Your task to perform on an android device: turn off location history Image 0: 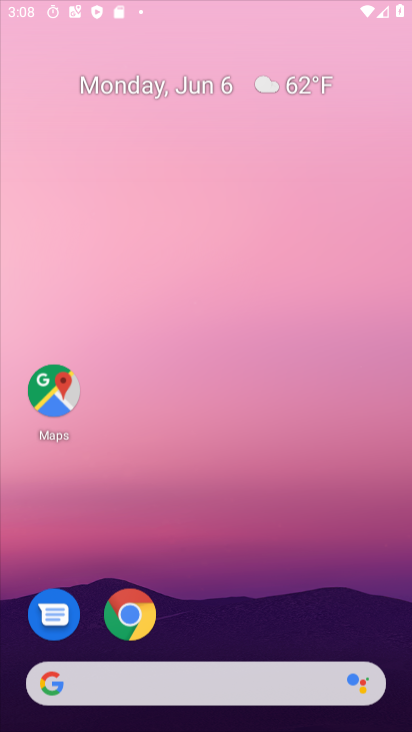
Step 0: drag from (380, 79) to (390, 22)
Your task to perform on an android device: turn off location history Image 1: 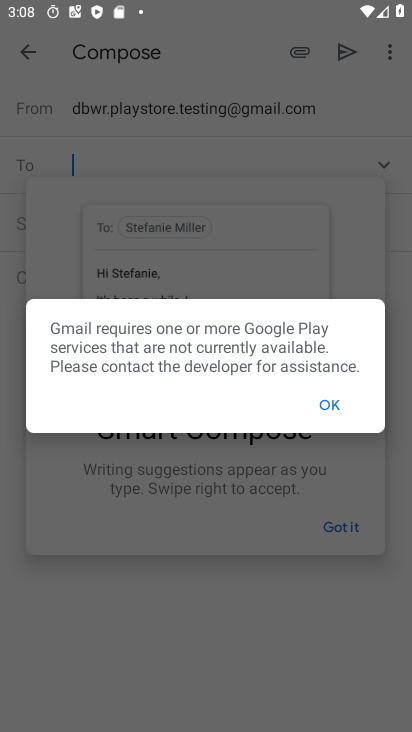
Step 1: press home button
Your task to perform on an android device: turn off location history Image 2: 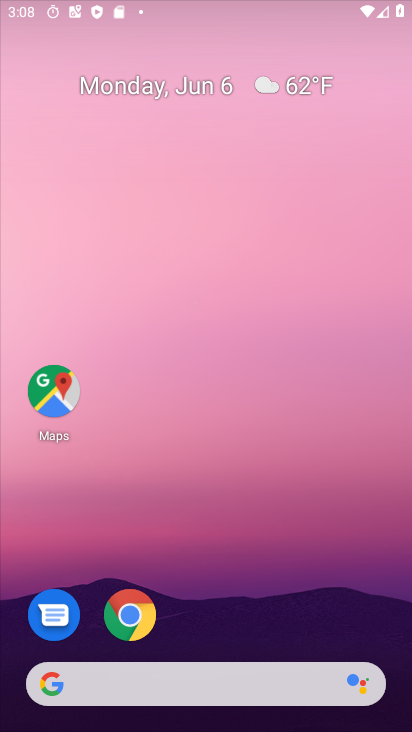
Step 2: drag from (211, 697) to (304, 0)
Your task to perform on an android device: turn off location history Image 3: 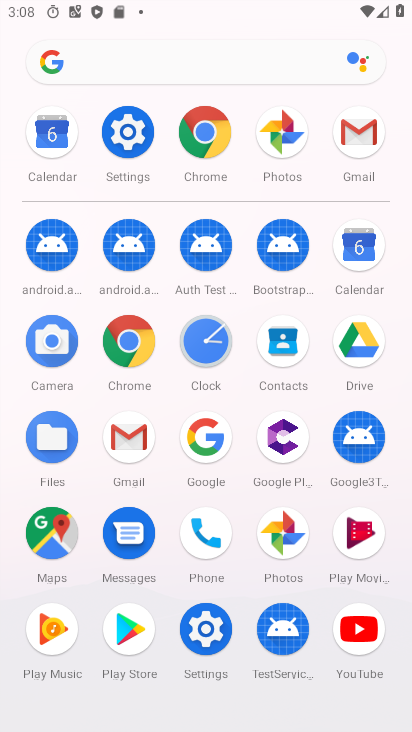
Step 3: click (60, 530)
Your task to perform on an android device: turn off location history Image 4: 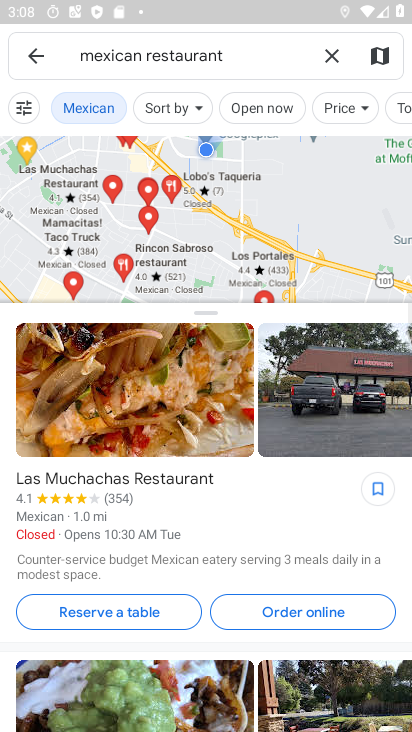
Step 4: press back button
Your task to perform on an android device: turn off location history Image 5: 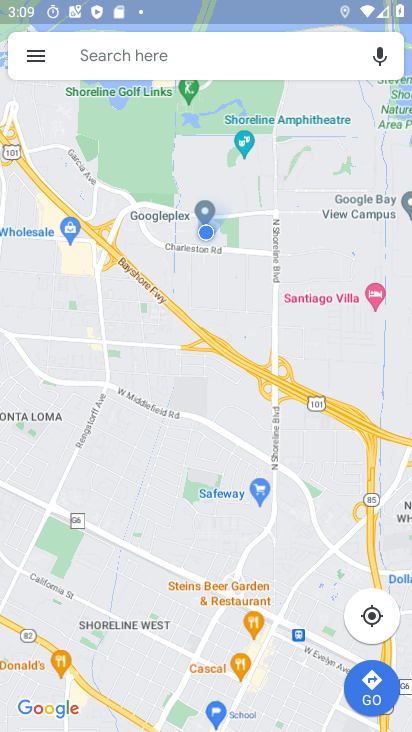
Step 5: click (48, 61)
Your task to perform on an android device: turn off location history Image 6: 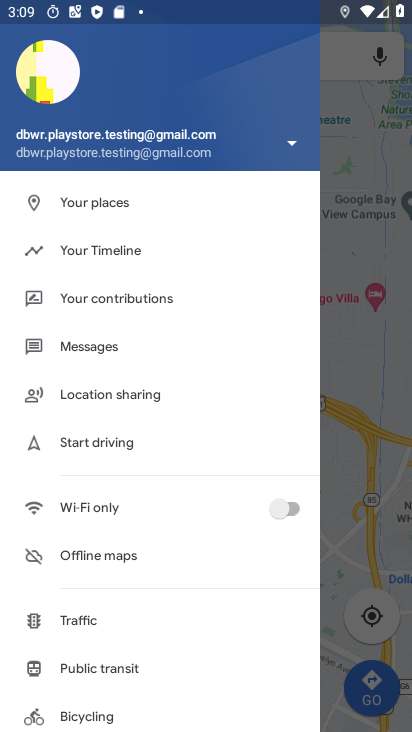
Step 6: click (169, 253)
Your task to perform on an android device: turn off location history Image 7: 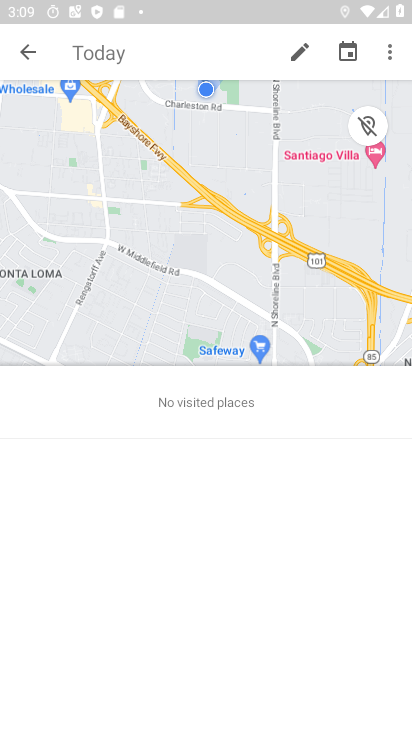
Step 7: press home button
Your task to perform on an android device: turn off location history Image 8: 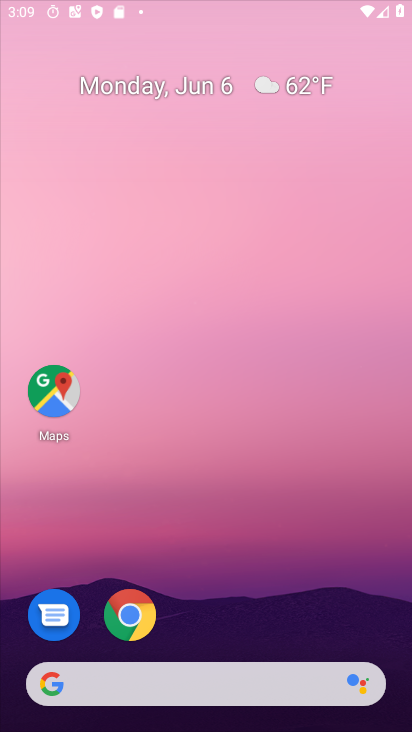
Step 8: drag from (267, 660) to (326, 4)
Your task to perform on an android device: turn off location history Image 9: 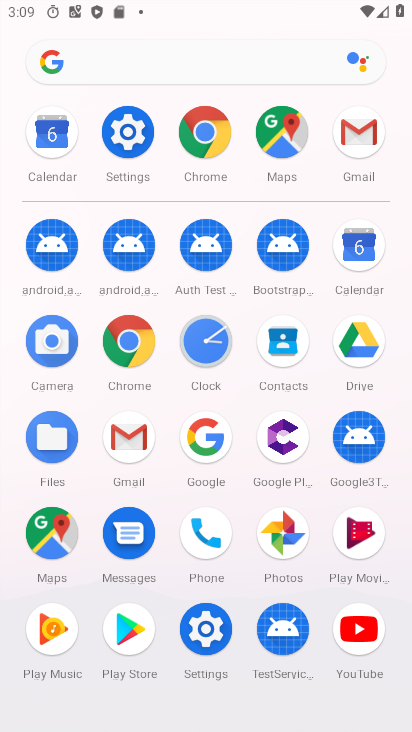
Step 9: click (126, 119)
Your task to perform on an android device: turn off location history Image 10: 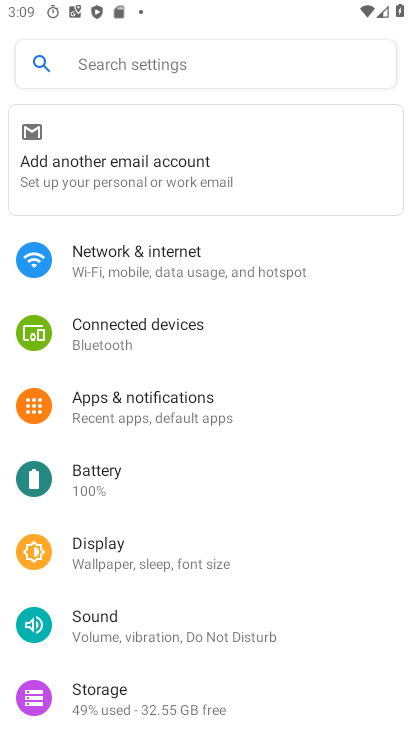
Step 10: drag from (209, 598) to (220, 96)
Your task to perform on an android device: turn off location history Image 11: 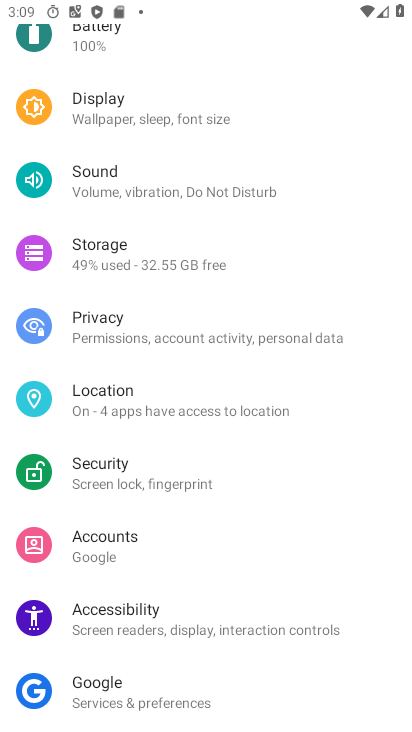
Step 11: click (174, 392)
Your task to perform on an android device: turn off location history Image 12: 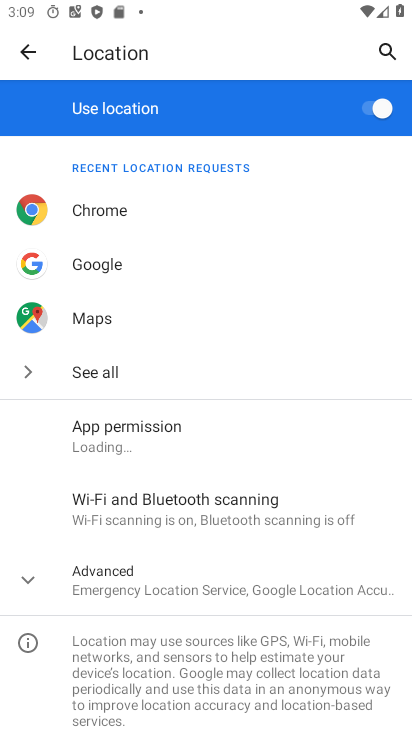
Step 12: click (175, 583)
Your task to perform on an android device: turn off location history Image 13: 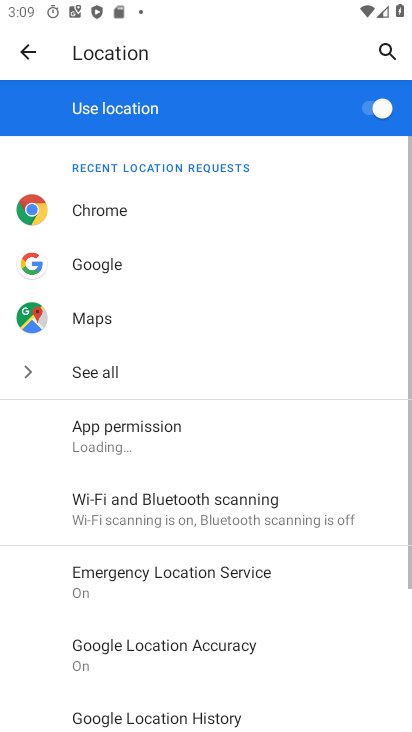
Step 13: drag from (177, 625) to (209, 243)
Your task to perform on an android device: turn off location history Image 14: 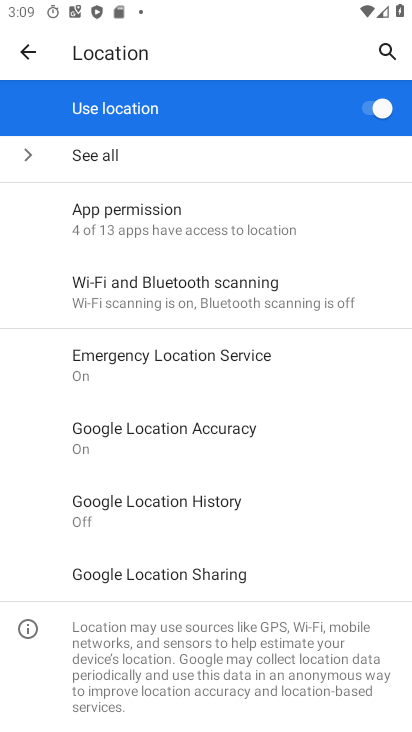
Step 14: click (193, 507)
Your task to perform on an android device: turn off location history Image 15: 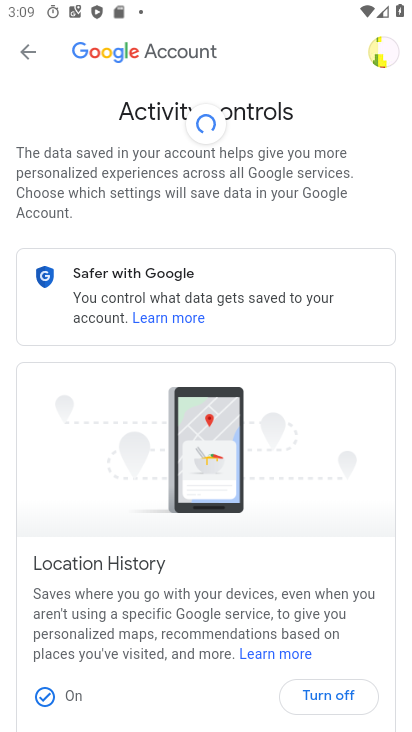
Step 15: drag from (219, 578) to (287, 195)
Your task to perform on an android device: turn off location history Image 16: 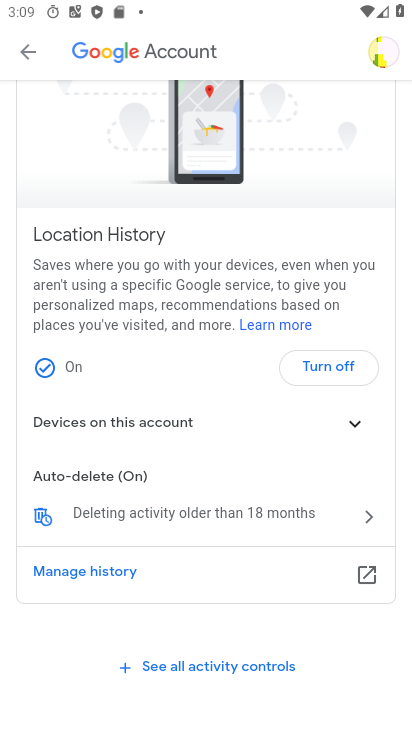
Step 16: click (331, 360)
Your task to perform on an android device: turn off location history Image 17: 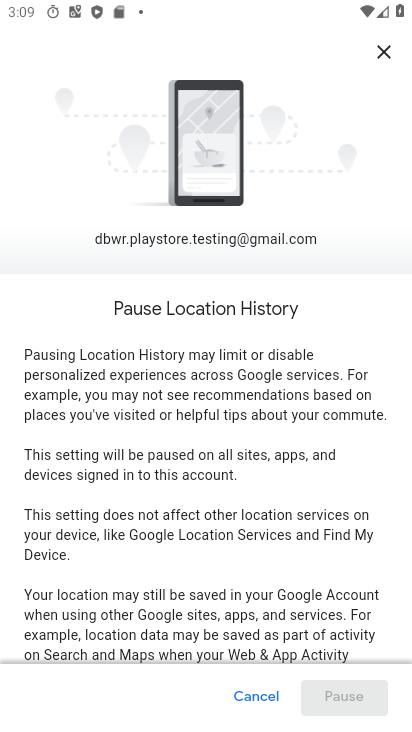
Step 17: drag from (300, 568) to (297, 95)
Your task to perform on an android device: turn off location history Image 18: 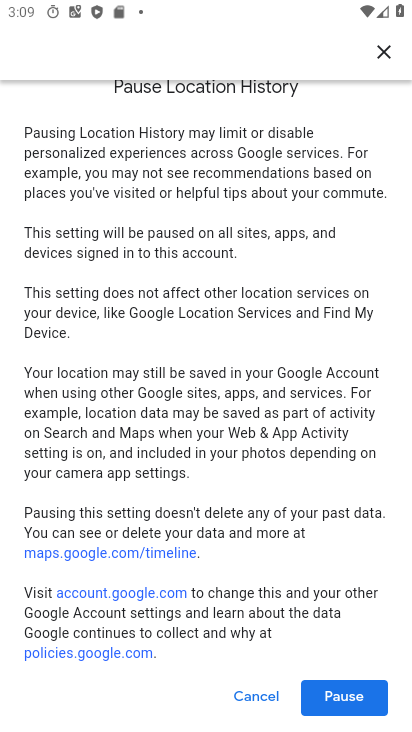
Step 18: drag from (244, 422) to (261, 290)
Your task to perform on an android device: turn off location history Image 19: 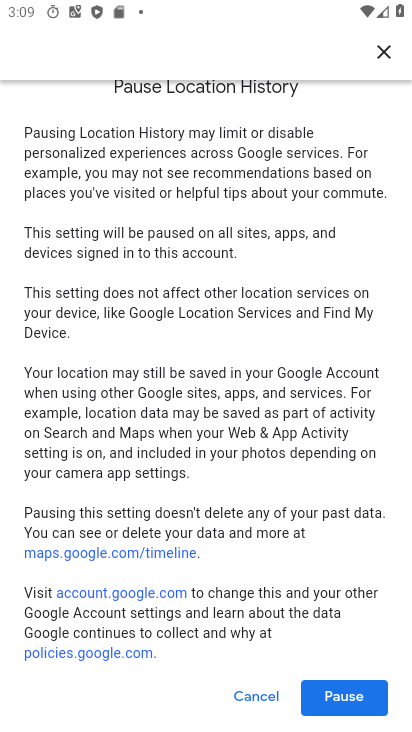
Step 19: click (322, 695)
Your task to perform on an android device: turn off location history Image 20: 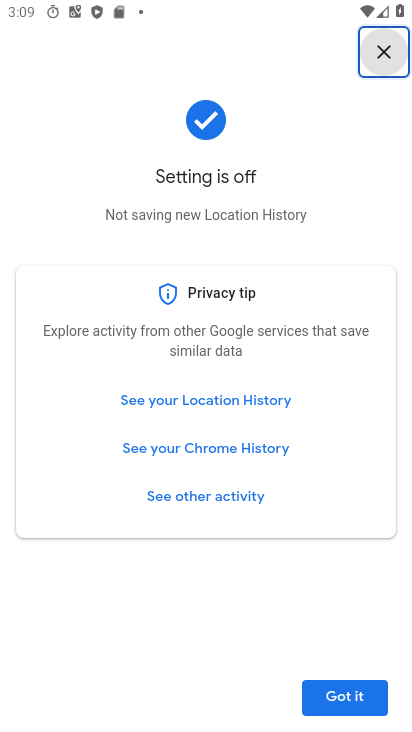
Step 20: click (365, 708)
Your task to perform on an android device: turn off location history Image 21: 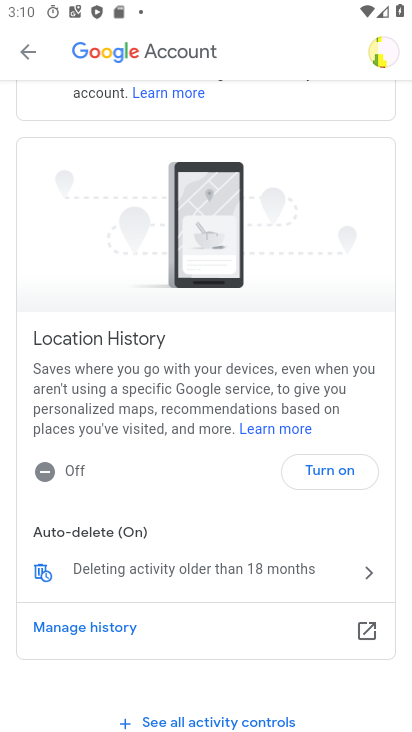
Step 21: task complete